Your task to perform on an android device: change alarm snooze length Image 0: 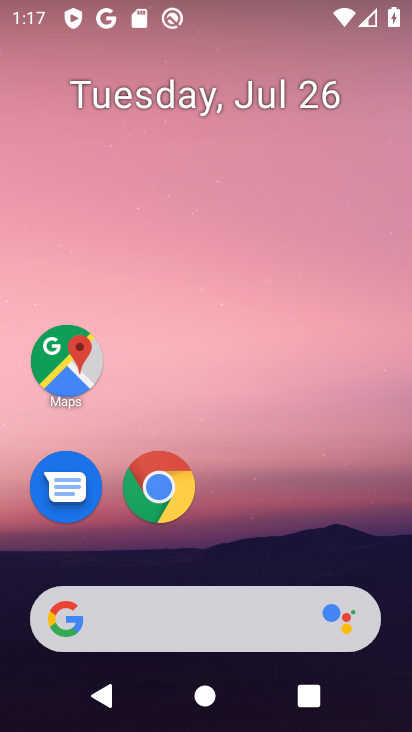
Step 0: click (236, 17)
Your task to perform on an android device: change alarm snooze length Image 1: 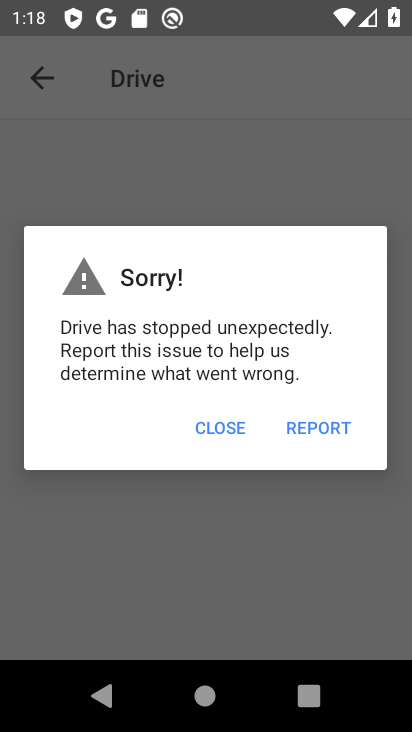
Step 1: press home button
Your task to perform on an android device: change alarm snooze length Image 2: 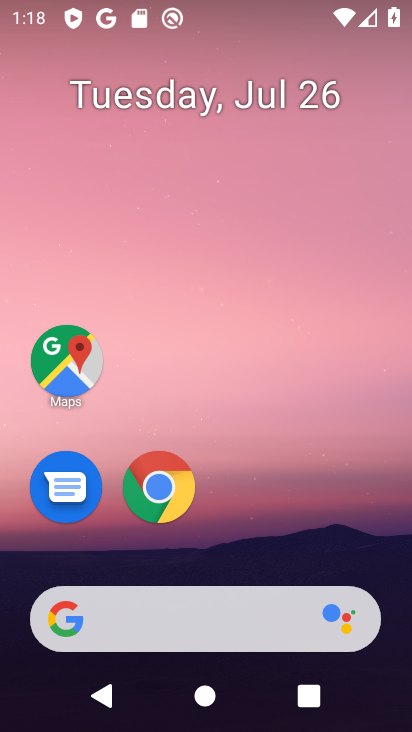
Step 2: drag from (175, 638) to (191, 136)
Your task to perform on an android device: change alarm snooze length Image 3: 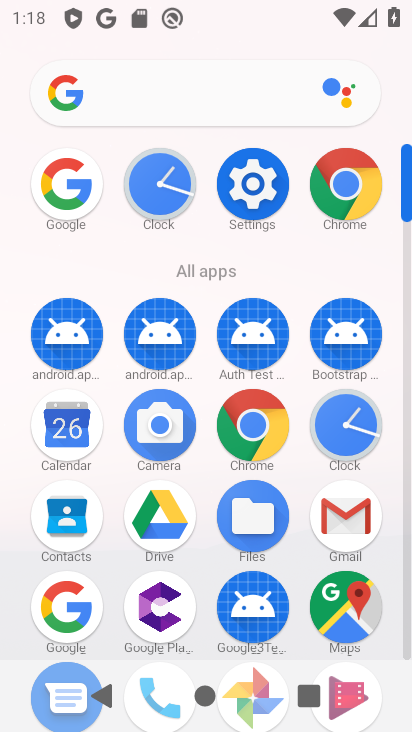
Step 3: click (169, 204)
Your task to perform on an android device: change alarm snooze length Image 4: 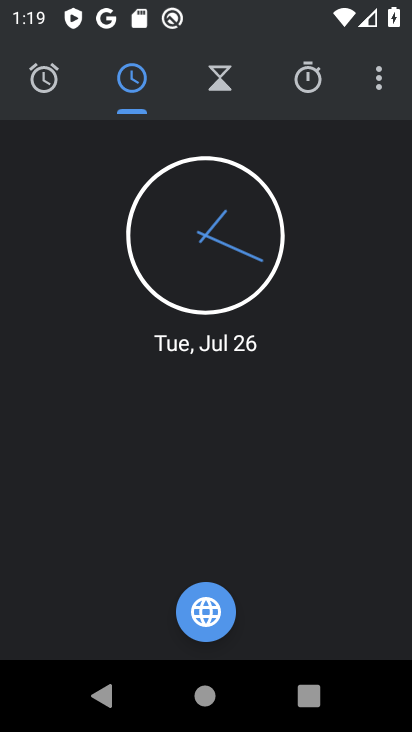
Step 4: click (379, 81)
Your task to perform on an android device: change alarm snooze length Image 5: 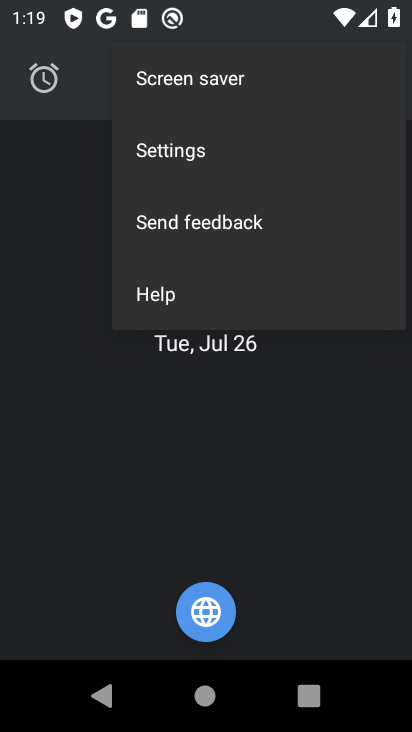
Step 5: click (159, 151)
Your task to perform on an android device: change alarm snooze length Image 6: 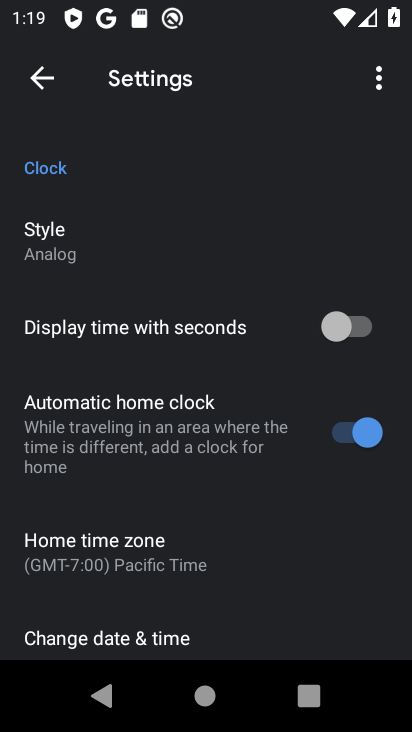
Step 6: drag from (112, 581) to (143, 354)
Your task to perform on an android device: change alarm snooze length Image 7: 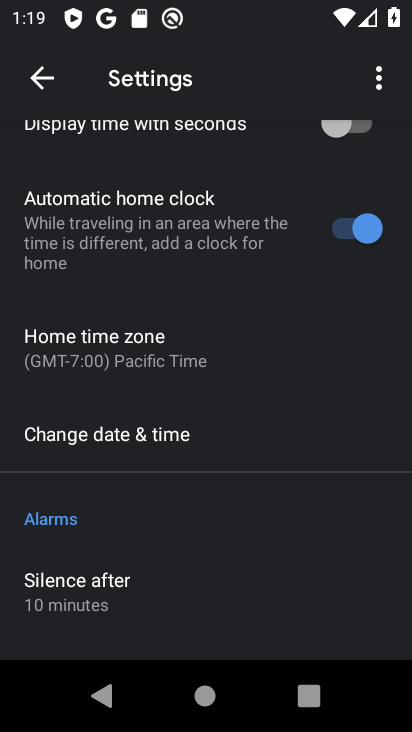
Step 7: drag from (106, 596) to (163, 334)
Your task to perform on an android device: change alarm snooze length Image 8: 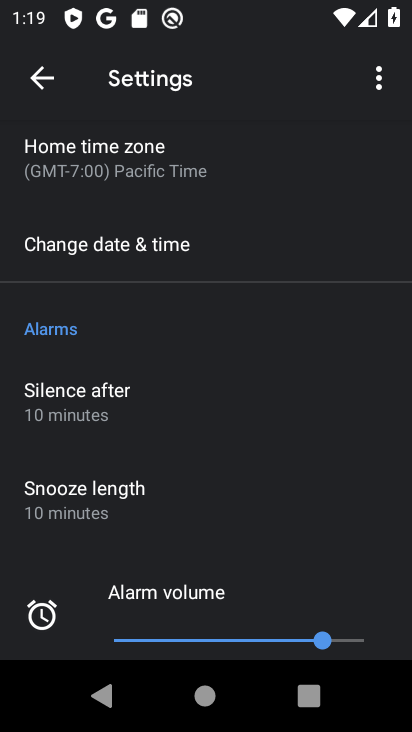
Step 8: click (138, 498)
Your task to perform on an android device: change alarm snooze length Image 9: 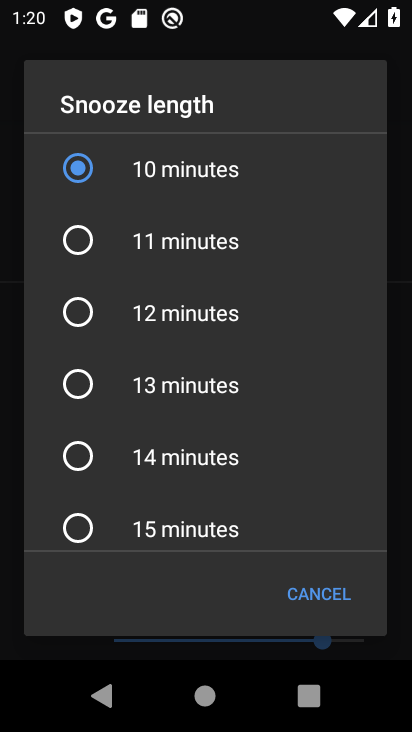
Step 9: click (104, 309)
Your task to perform on an android device: change alarm snooze length Image 10: 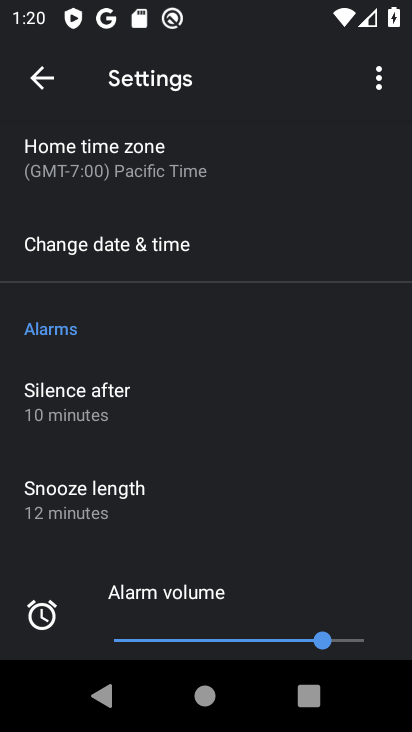
Step 10: click (131, 508)
Your task to perform on an android device: change alarm snooze length Image 11: 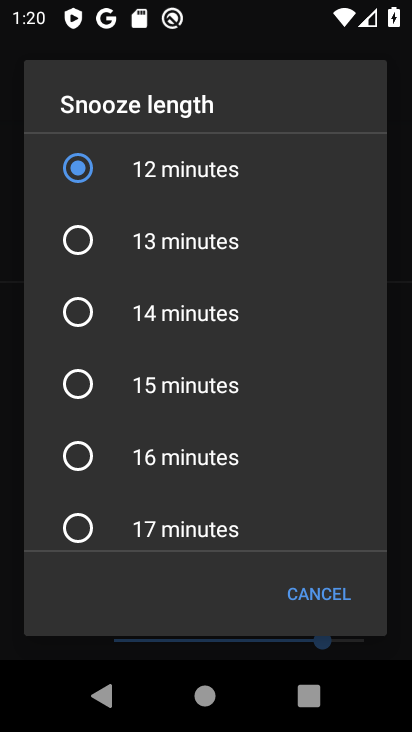
Step 11: task complete